Your task to perform on an android device: toggle wifi Image 0: 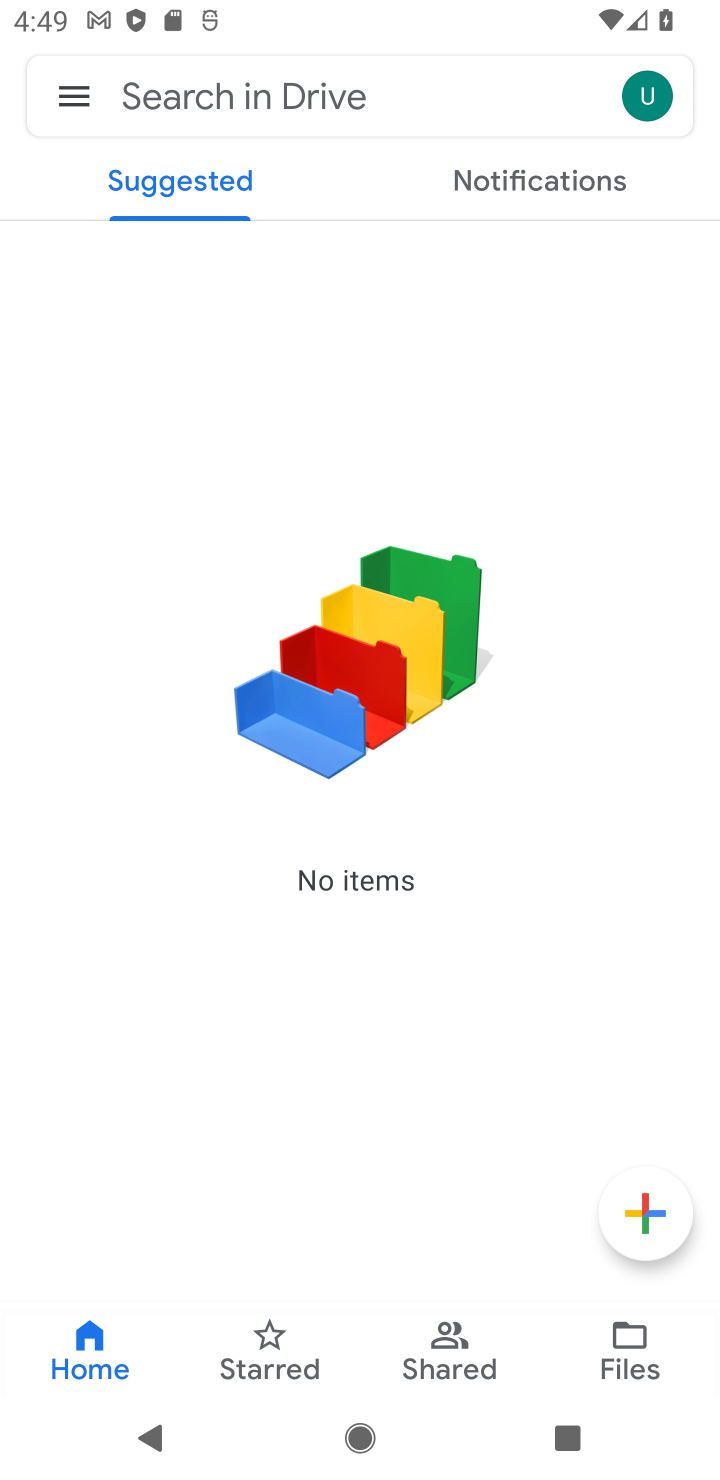
Step 0: task complete